Your task to perform on an android device: turn on priority inbox in the gmail app Image 0: 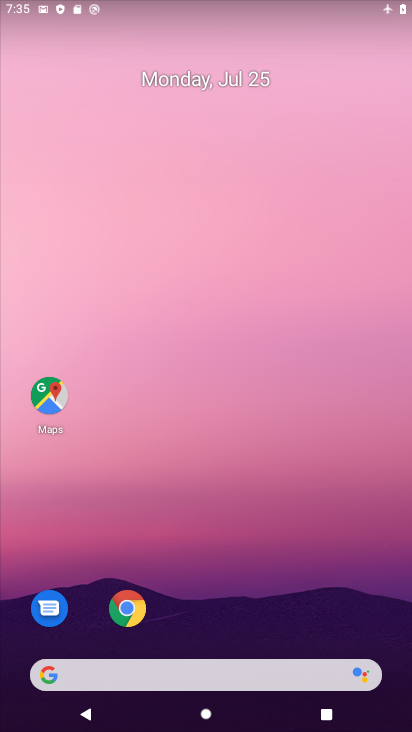
Step 0: drag from (333, 593) to (227, 133)
Your task to perform on an android device: turn on priority inbox in the gmail app Image 1: 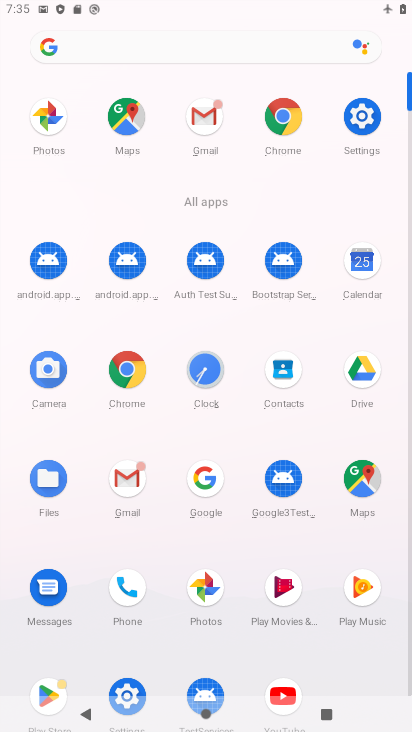
Step 1: click (199, 118)
Your task to perform on an android device: turn on priority inbox in the gmail app Image 2: 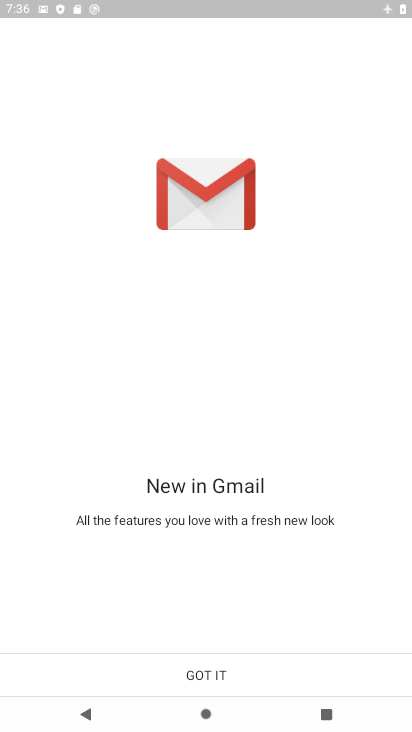
Step 2: click (238, 675)
Your task to perform on an android device: turn on priority inbox in the gmail app Image 3: 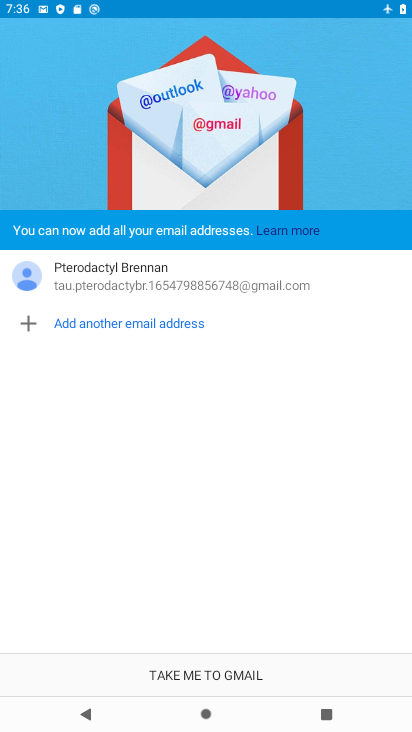
Step 3: click (238, 670)
Your task to perform on an android device: turn on priority inbox in the gmail app Image 4: 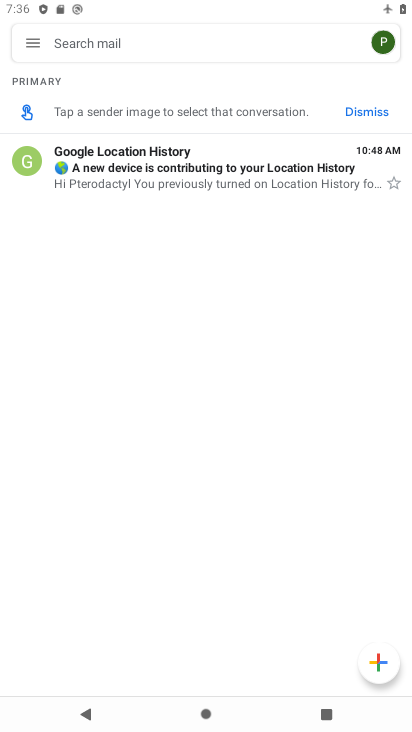
Step 4: click (33, 40)
Your task to perform on an android device: turn on priority inbox in the gmail app Image 5: 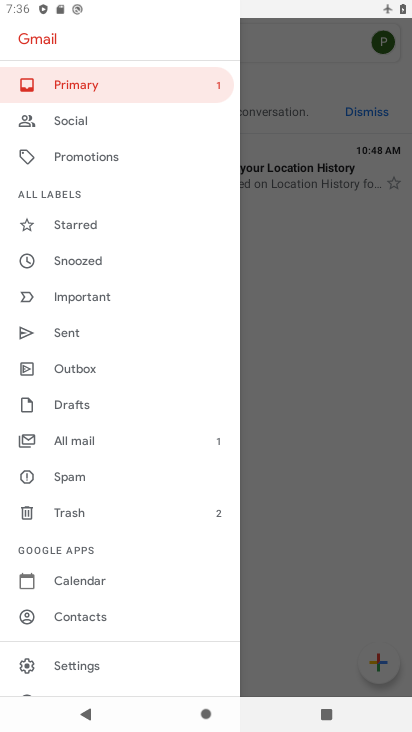
Step 5: click (70, 666)
Your task to perform on an android device: turn on priority inbox in the gmail app Image 6: 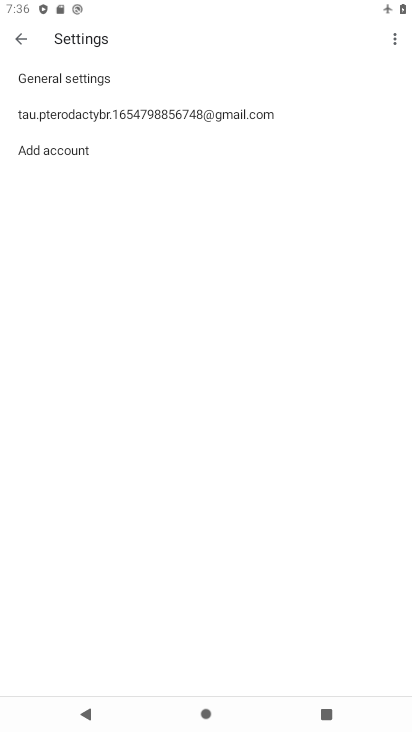
Step 6: click (171, 104)
Your task to perform on an android device: turn on priority inbox in the gmail app Image 7: 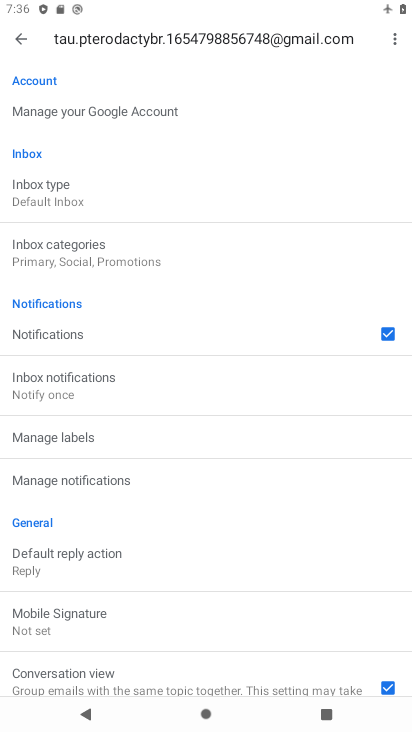
Step 7: click (67, 194)
Your task to perform on an android device: turn on priority inbox in the gmail app Image 8: 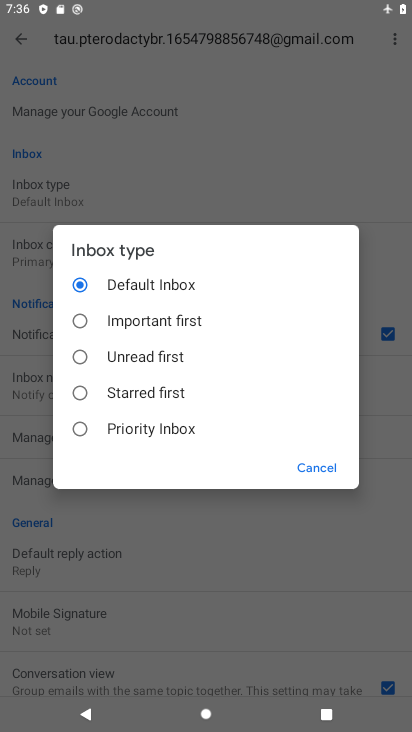
Step 8: click (149, 427)
Your task to perform on an android device: turn on priority inbox in the gmail app Image 9: 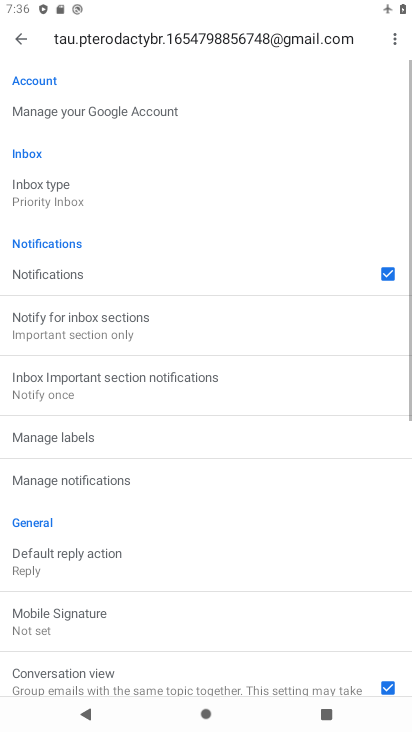
Step 9: task complete